Your task to perform on an android device: find photos in the google photos app Image 0: 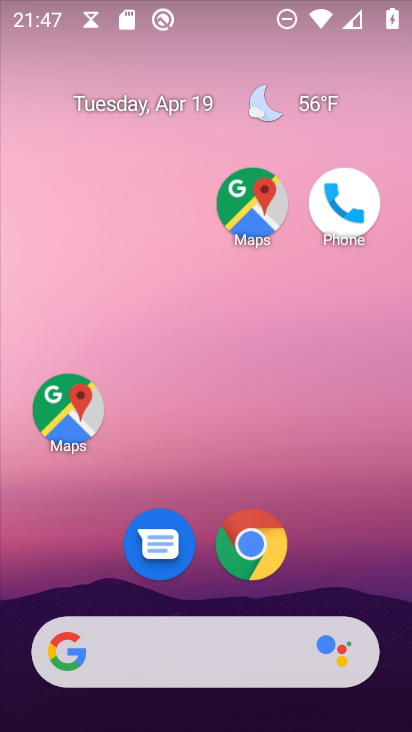
Step 0: drag from (166, 536) to (293, 52)
Your task to perform on an android device: find photos in the google photos app Image 1: 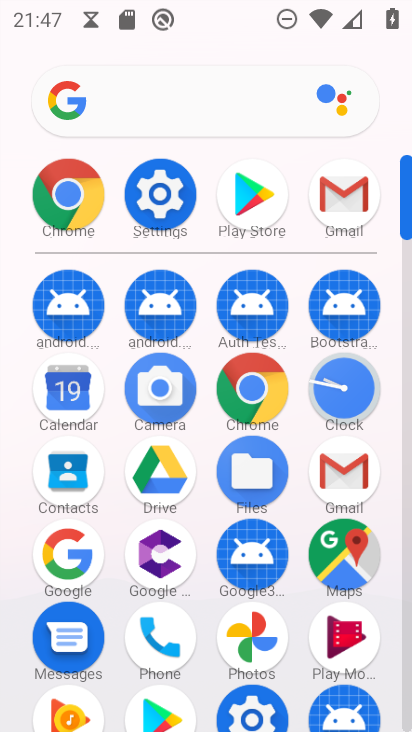
Step 1: click (255, 633)
Your task to perform on an android device: find photos in the google photos app Image 2: 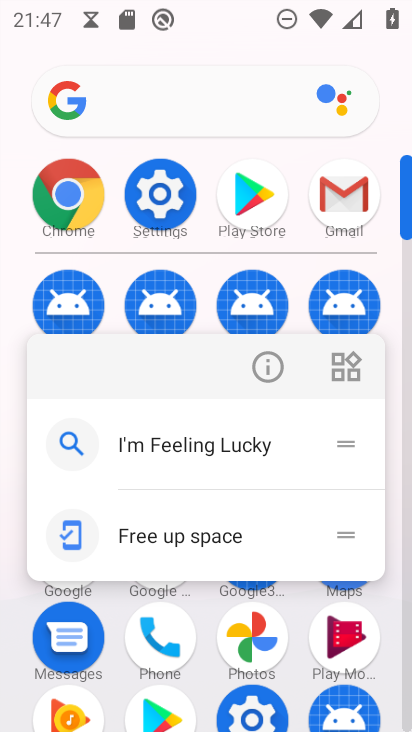
Step 2: click (246, 639)
Your task to perform on an android device: find photos in the google photos app Image 3: 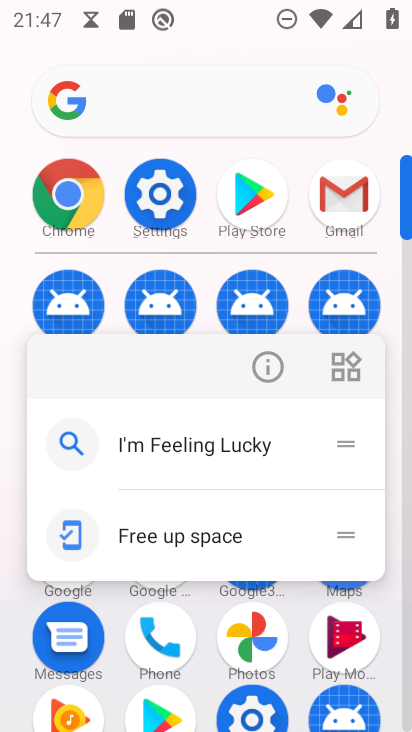
Step 3: click (255, 632)
Your task to perform on an android device: find photos in the google photos app Image 4: 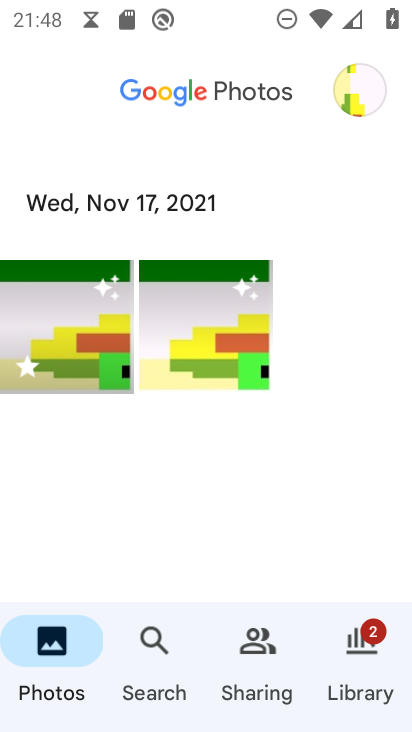
Step 4: task complete